Your task to perform on an android device: Open the Play Movies app and select the watchlist tab. Image 0: 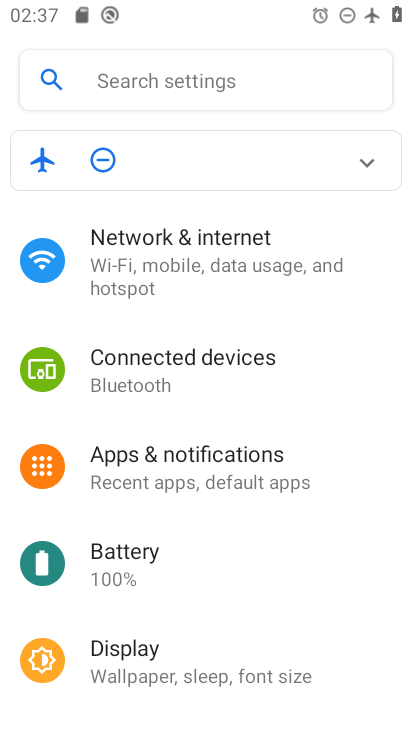
Step 0: press home button
Your task to perform on an android device: Open the Play Movies app and select the watchlist tab. Image 1: 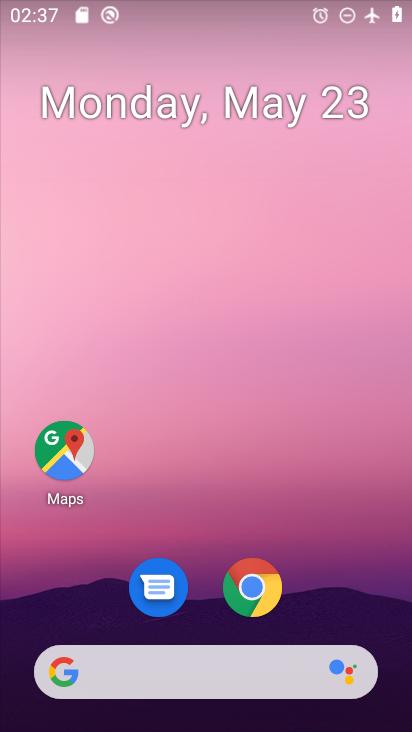
Step 1: drag from (322, 603) to (300, 31)
Your task to perform on an android device: Open the Play Movies app and select the watchlist tab. Image 2: 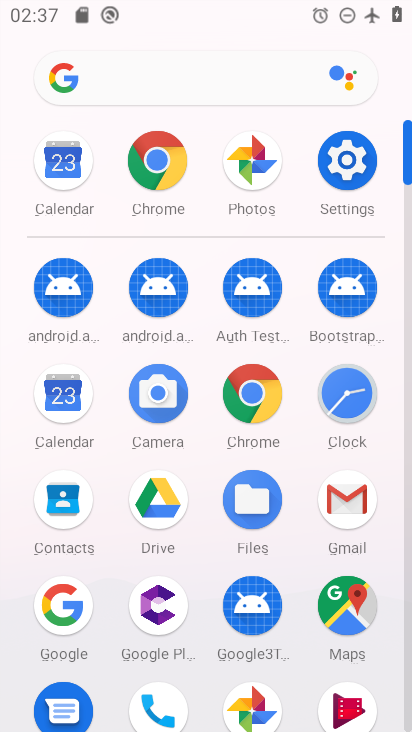
Step 2: click (350, 696)
Your task to perform on an android device: Open the Play Movies app and select the watchlist tab. Image 3: 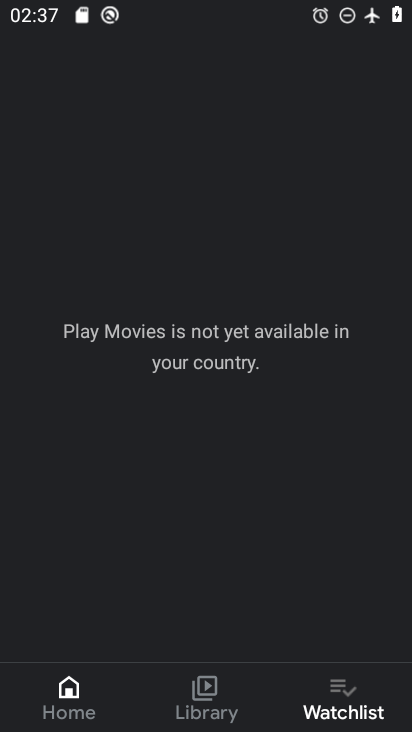
Step 3: click (355, 689)
Your task to perform on an android device: Open the Play Movies app and select the watchlist tab. Image 4: 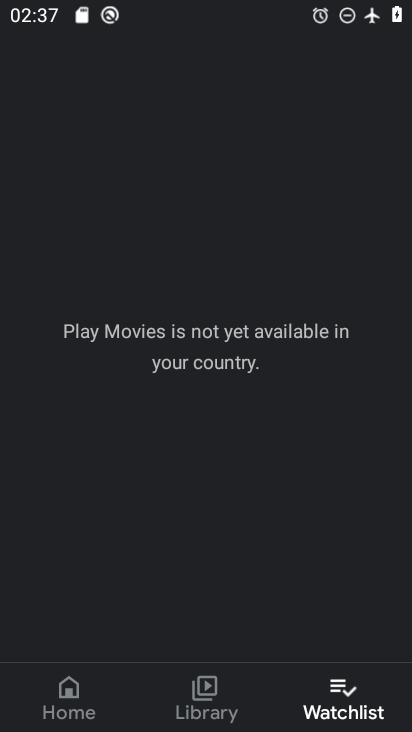
Step 4: task complete